Your task to perform on an android device: change the clock display to digital Image 0: 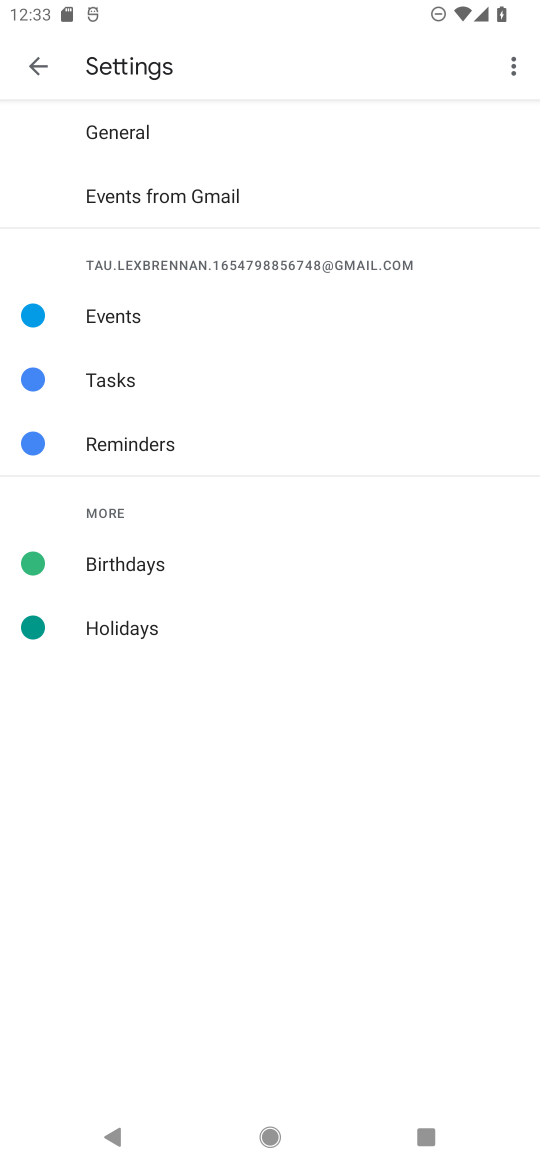
Step 0: press home button
Your task to perform on an android device: change the clock display to digital Image 1: 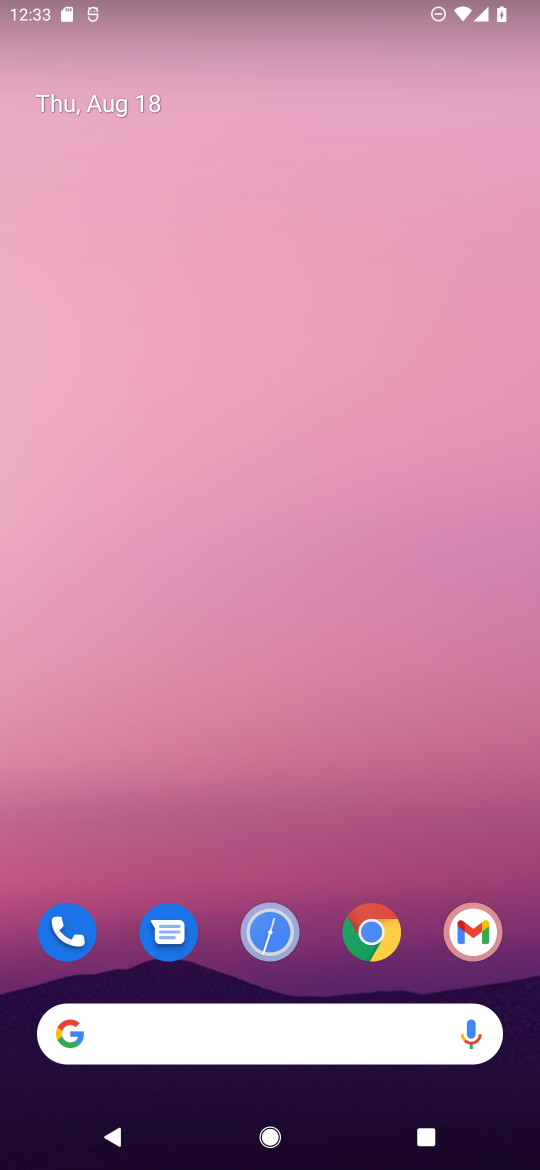
Step 1: click (273, 932)
Your task to perform on an android device: change the clock display to digital Image 2: 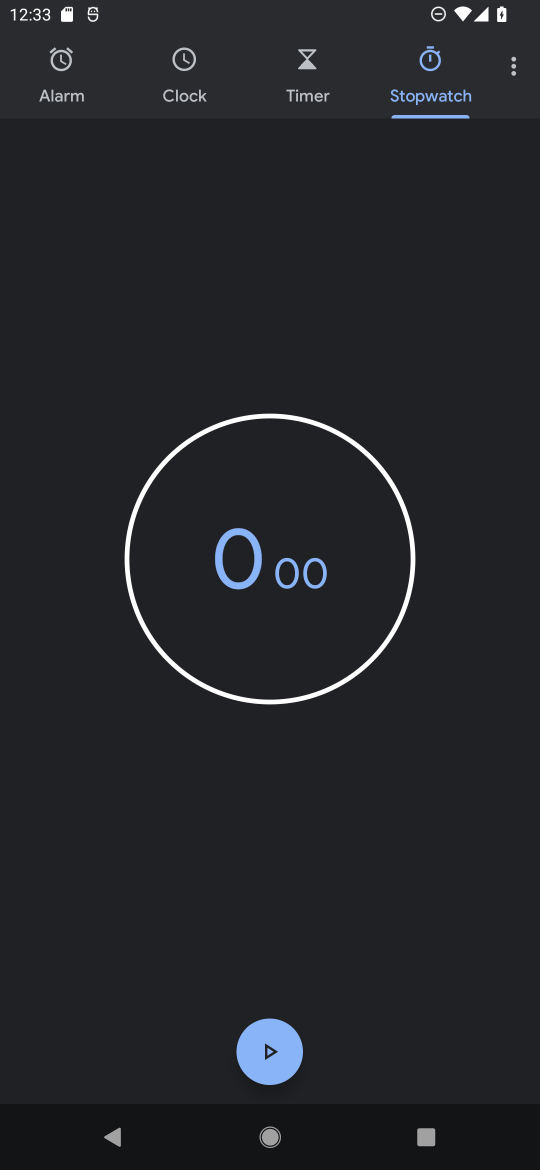
Step 2: click (514, 69)
Your task to perform on an android device: change the clock display to digital Image 3: 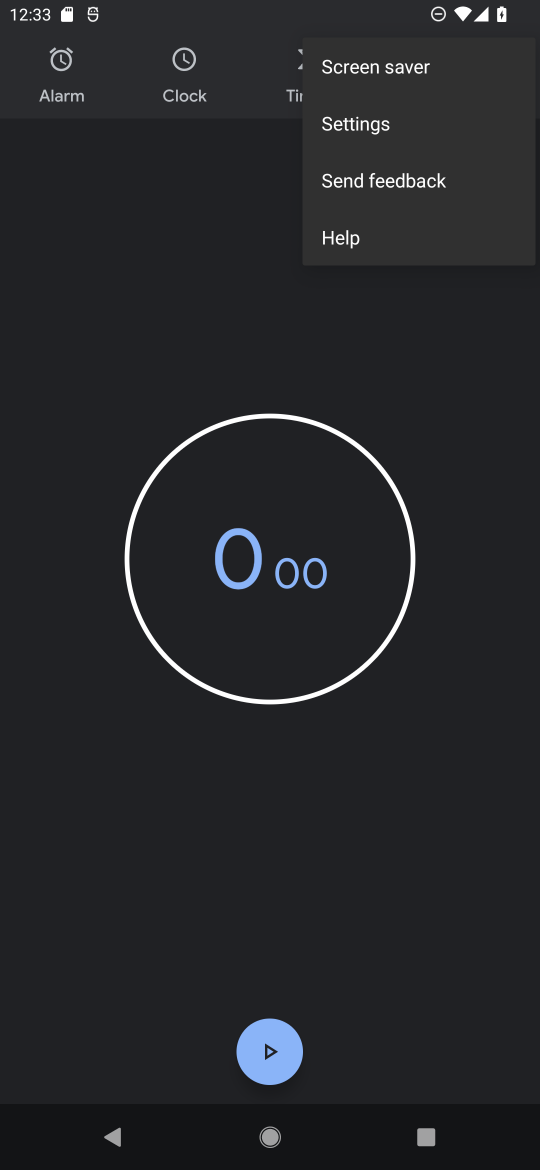
Step 3: click (375, 127)
Your task to perform on an android device: change the clock display to digital Image 4: 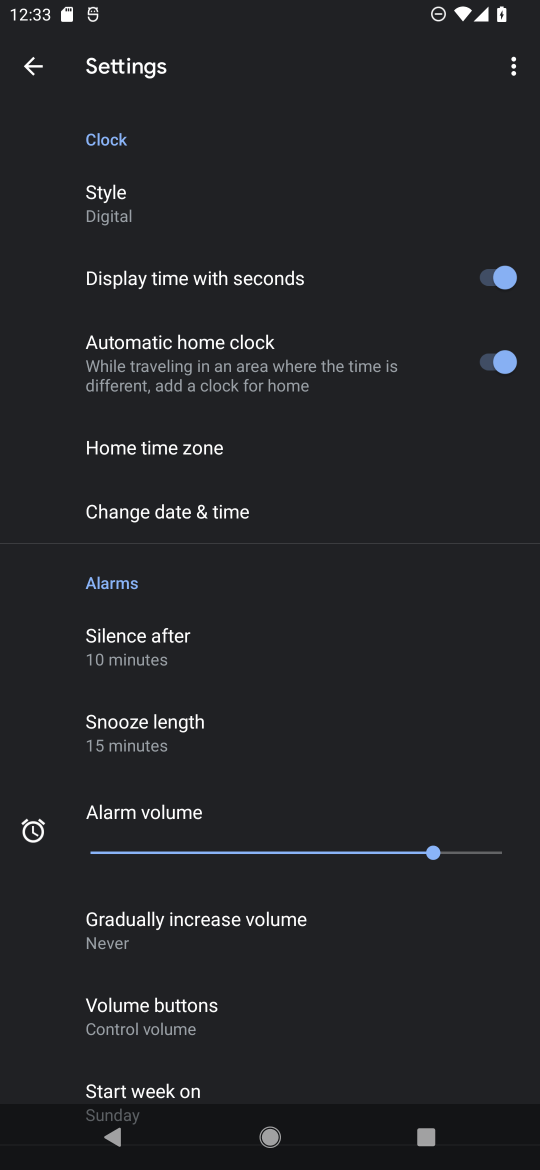
Step 4: click (111, 196)
Your task to perform on an android device: change the clock display to digital Image 5: 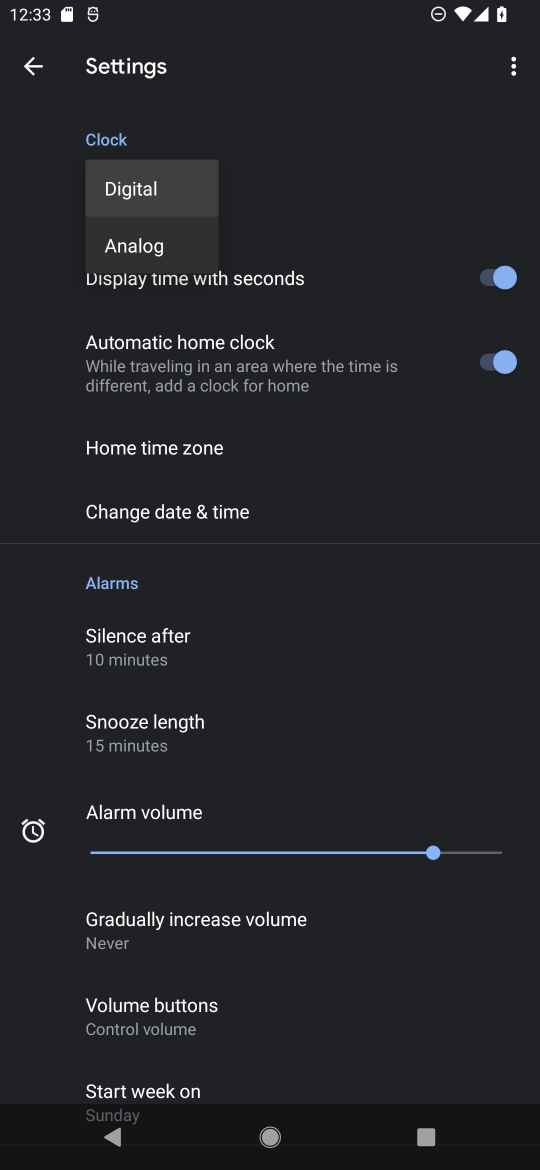
Step 5: click (156, 196)
Your task to perform on an android device: change the clock display to digital Image 6: 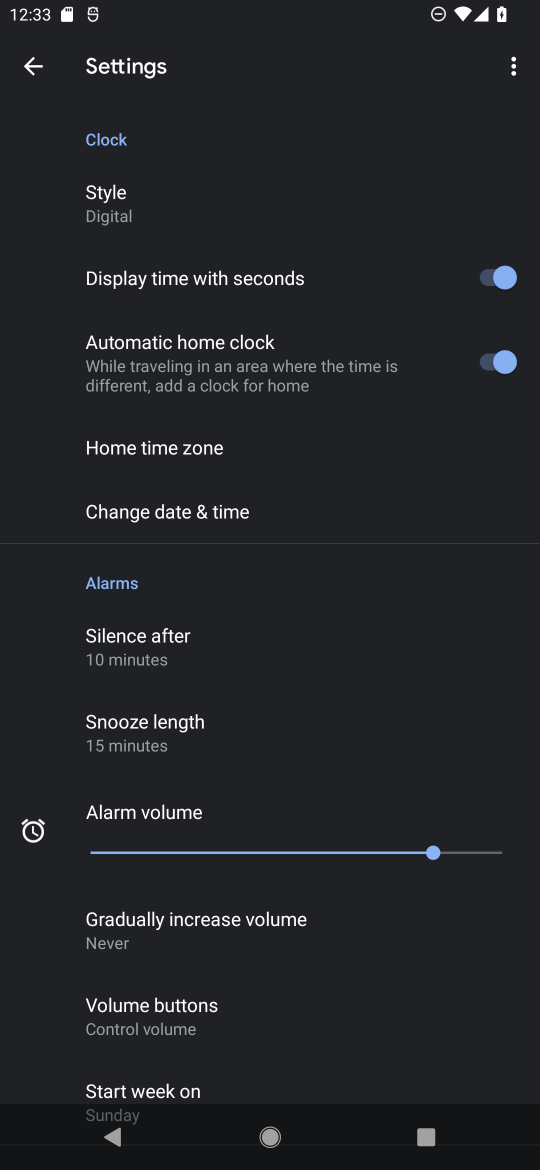
Step 6: task complete